Your task to perform on an android device: see tabs open on other devices in the chrome app Image 0: 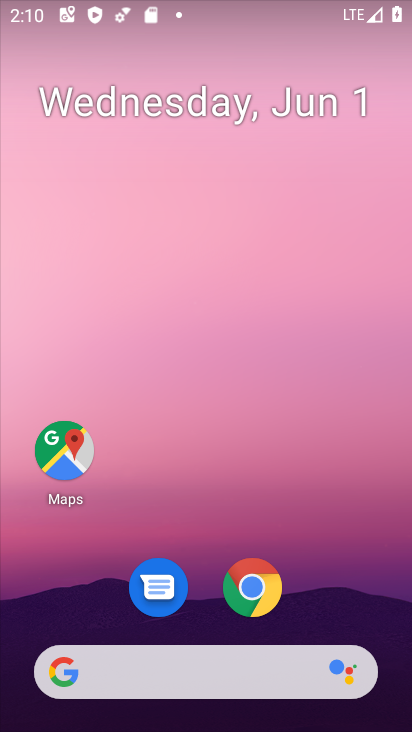
Step 0: drag from (245, 646) to (176, 96)
Your task to perform on an android device: see tabs open on other devices in the chrome app Image 1: 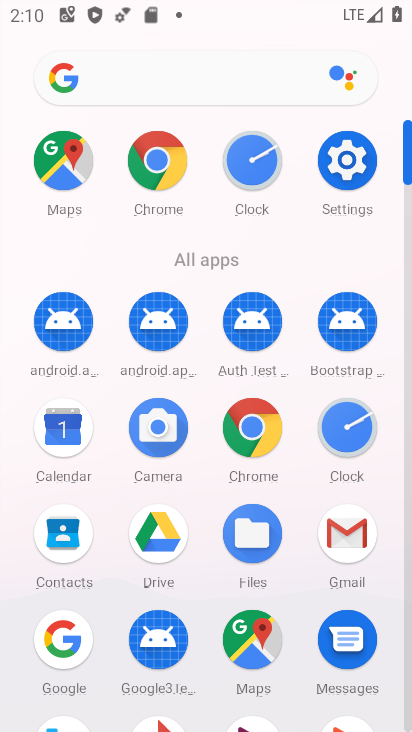
Step 1: click (145, 182)
Your task to perform on an android device: see tabs open on other devices in the chrome app Image 2: 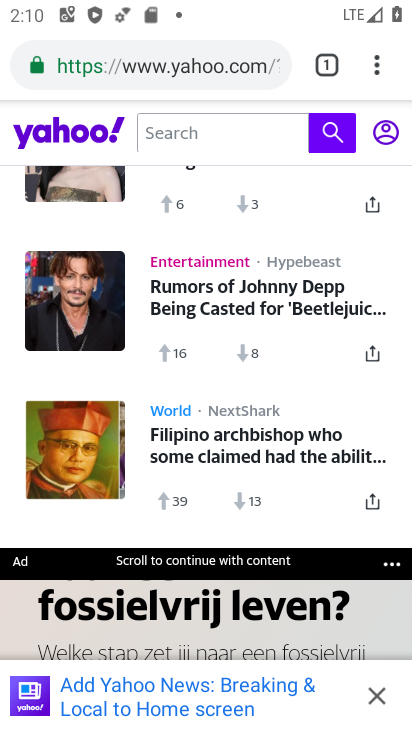
Step 2: task complete